Your task to perform on an android device: Go to ESPN.com Image 0: 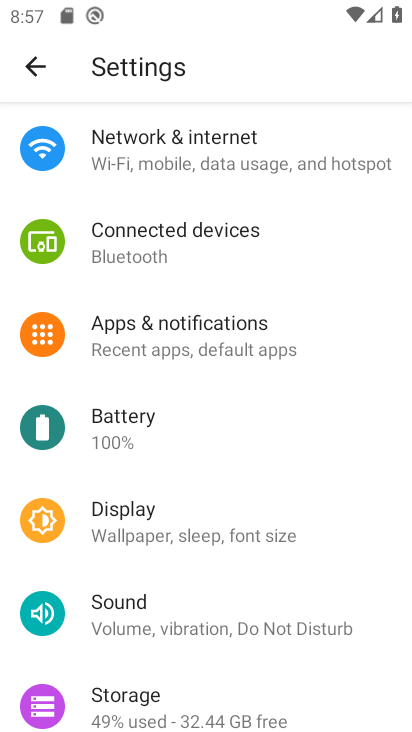
Step 0: press home button
Your task to perform on an android device: Go to ESPN.com Image 1: 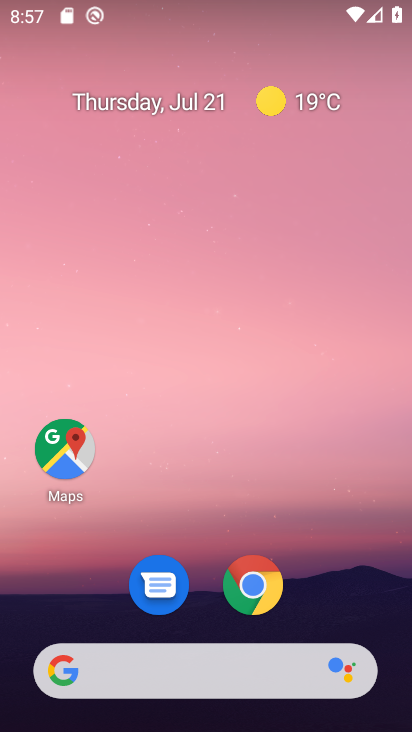
Step 1: click (205, 689)
Your task to perform on an android device: Go to ESPN.com Image 2: 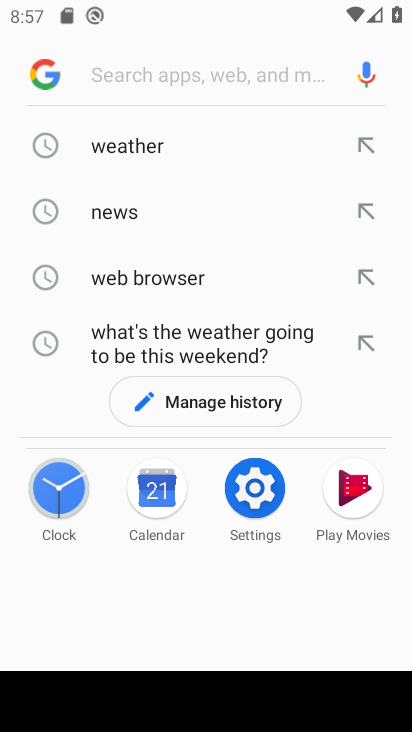
Step 2: type "espn.com"
Your task to perform on an android device: Go to ESPN.com Image 3: 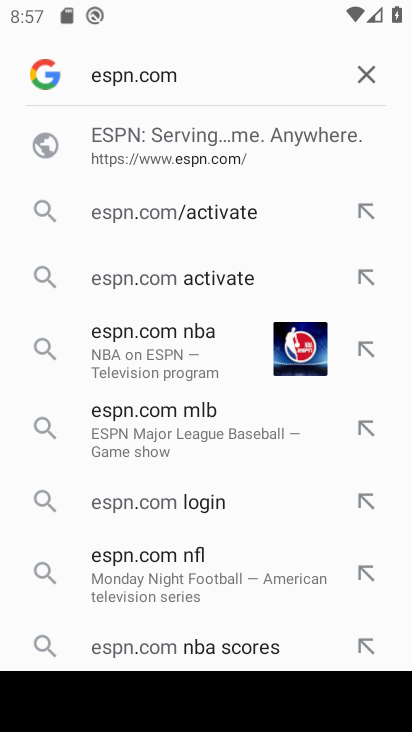
Step 3: click (230, 145)
Your task to perform on an android device: Go to ESPN.com Image 4: 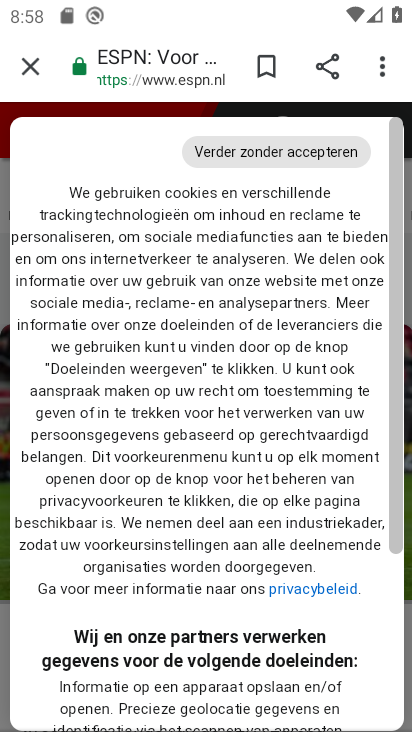
Step 4: task complete